Your task to perform on an android device: change the upload size in google photos Image 0: 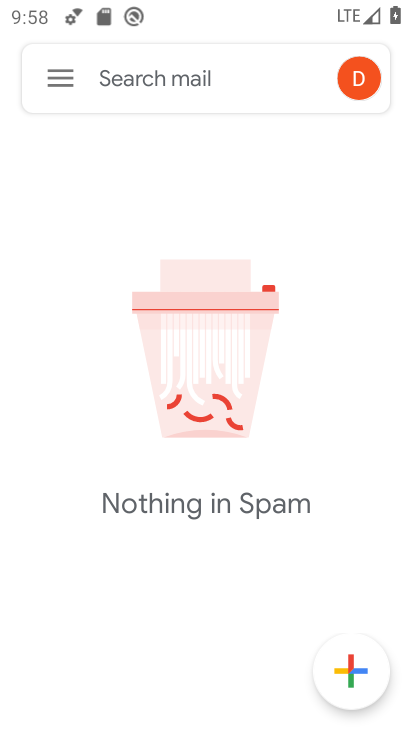
Step 0: press home button
Your task to perform on an android device: change the upload size in google photos Image 1: 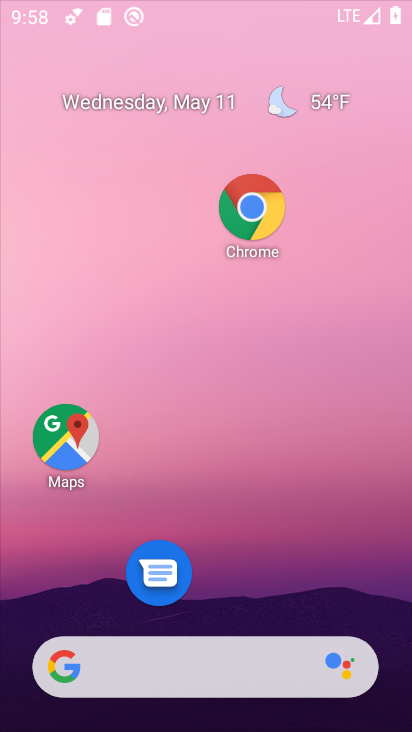
Step 1: drag from (151, 597) to (78, 19)
Your task to perform on an android device: change the upload size in google photos Image 2: 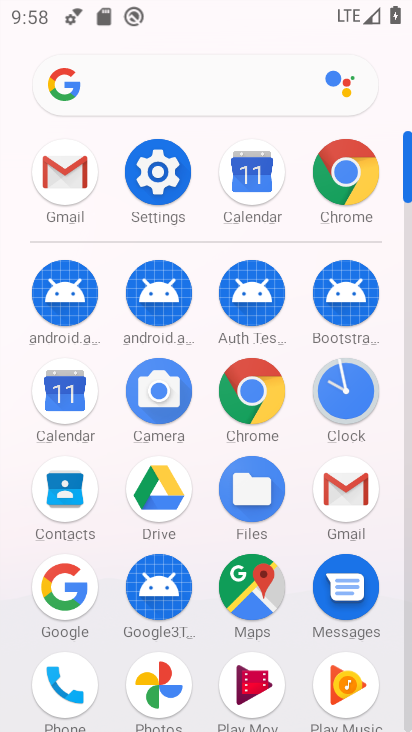
Step 2: click (167, 677)
Your task to perform on an android device: change the upload size in google photos Image 3: 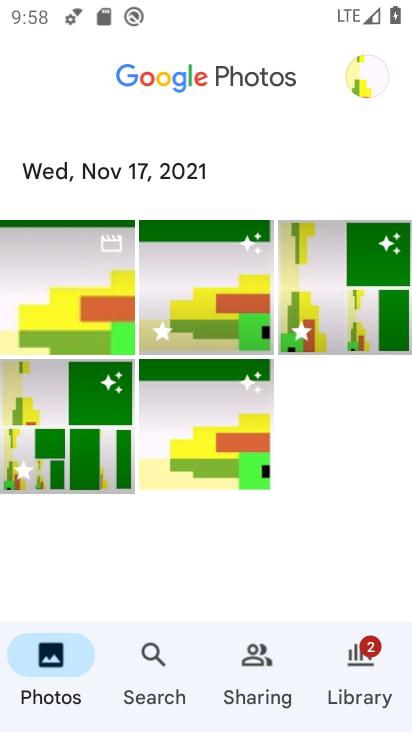
Step 3: click (361, 81)
Your task to perform on an android device: change the upload size in google photos Image 4: 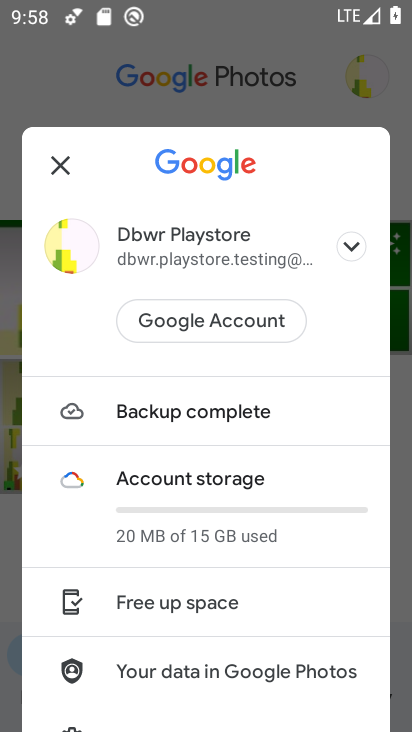
Step 4: drag from (249, 608) to (241, 184)
Your task to perform on an android device: change the upload size in google photos Image 5: 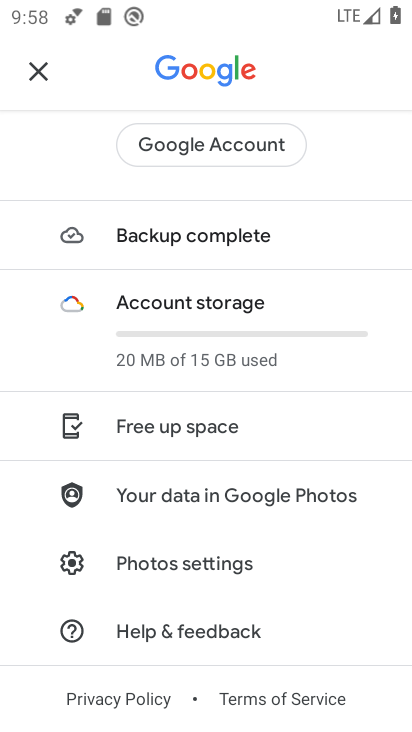
Step 5: click (182, 571)
Your task to perform on an android device: change the upload size in google photos Image 6: 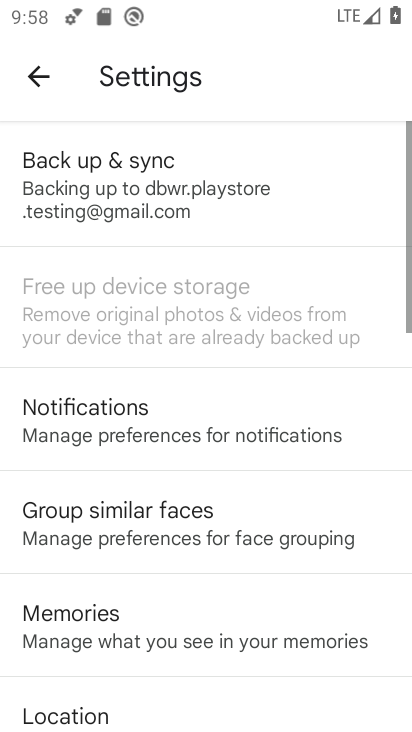
Step 6: click (176, 167)
Your task to perform on an android device: change the upload size in google photos Image 7: 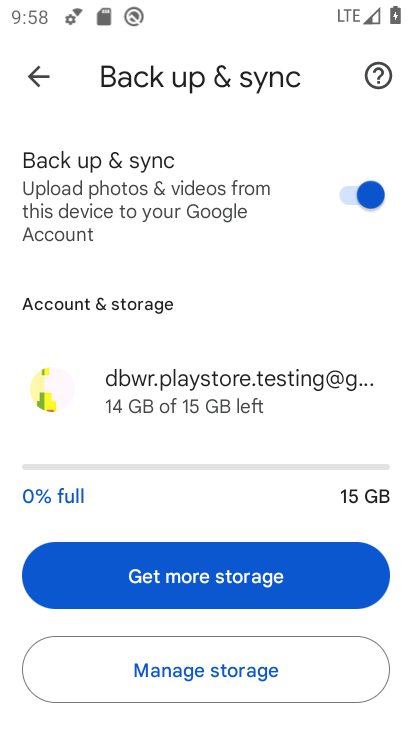
Step 7: drag from (284, 502) to (280, 96)
Your task to perform on an android device: change the upload size in google photos Image 8: 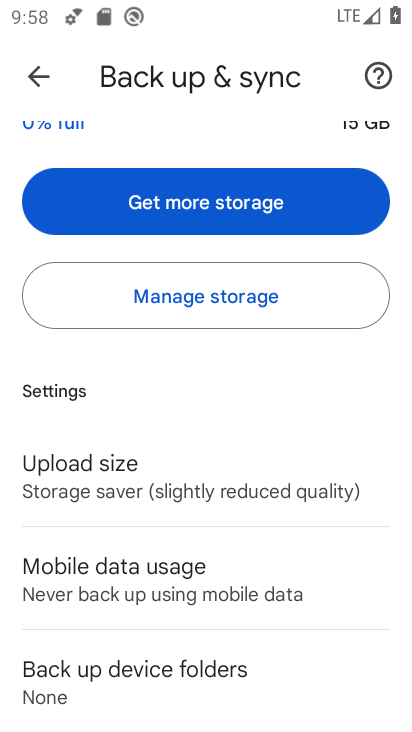
Step 8: click (203, 483)
Your task to perform on an android device: change the upload size in google photos Image 9: 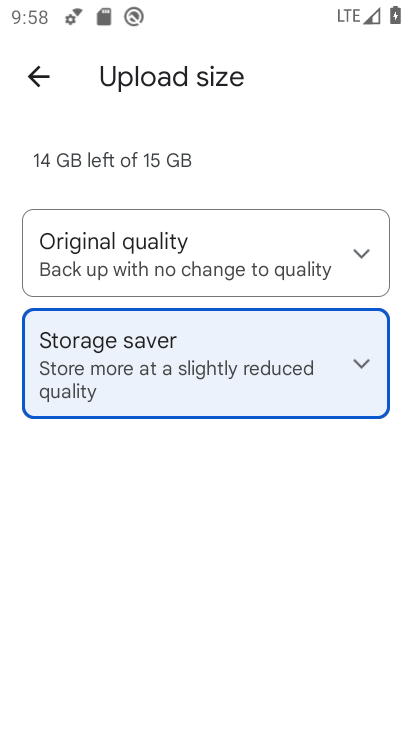
Step 9: click (199, 245)
Your task to perform on an android device: change the upload size in google photos Image 10: 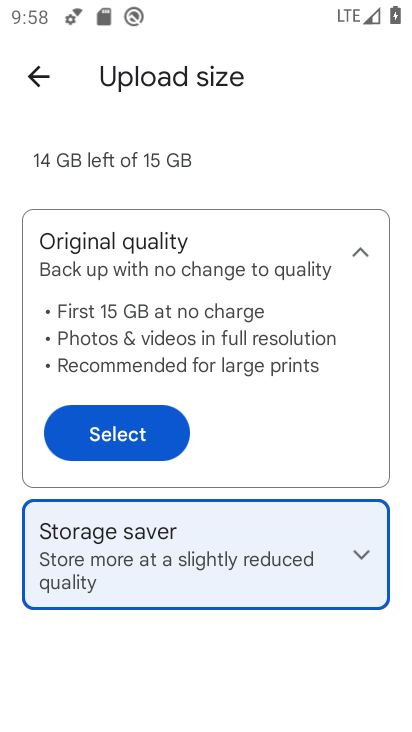
Step 10: click (155, 420)
Your task to perform on an android device: change the upload size in google photos Image 11: 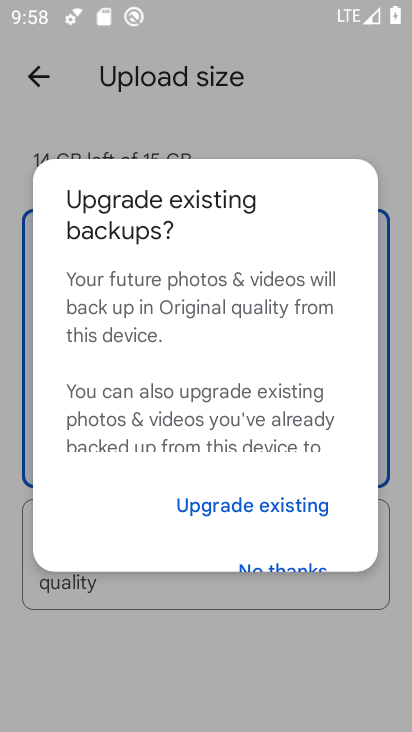
Step 11: click (285, 499)
Your task to perform on an android device: change the upload size in google photos Image 12: 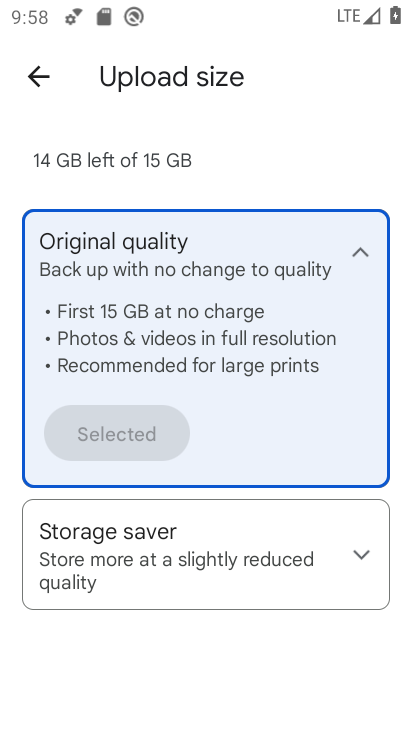
Step 12: task complete